Your task to perform on an android device: turn off notifications settings in the gmail app Image 0: 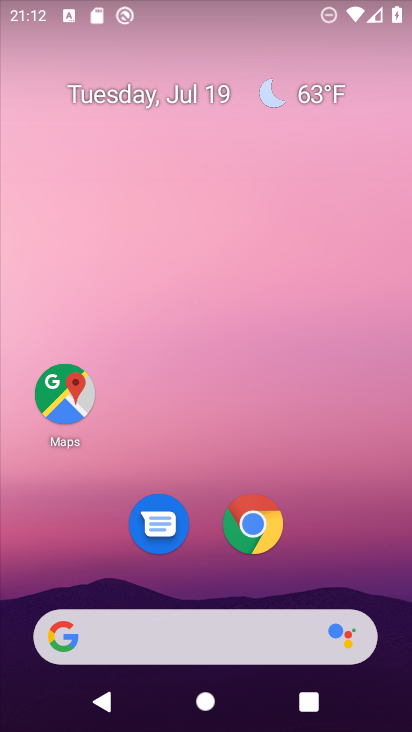
Step 0: drag from (315, 569) to (362, 27)
Your task to perform on an android device: turn off notifications settings in the gmail app Image 1: 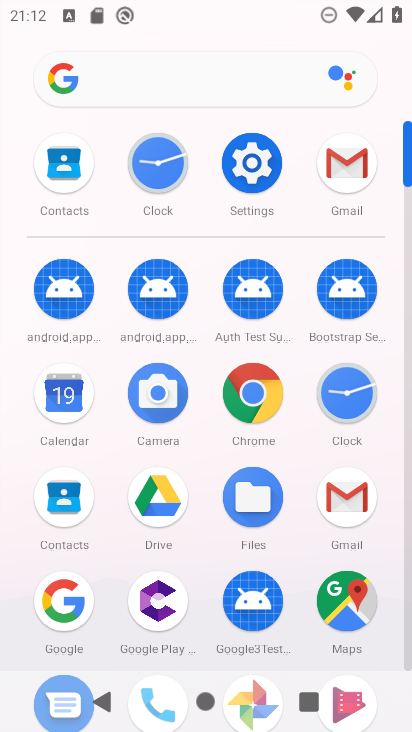
Step 1: click (357, 167)
Your task to perform on an android device: turn off notifications settings in the gmail app Image 2: 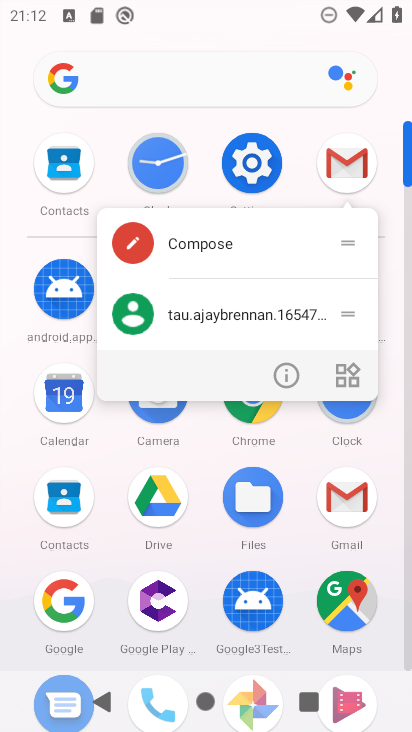
Step 2: click (349, 141)
Your task to perform on an android device: turn off notifications settings in the gmail app Image 3: 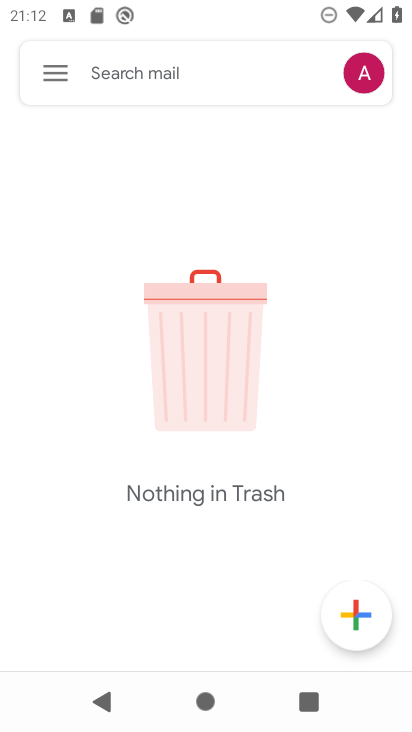
Step 3: click (61, 75)
Your task to perform on an android device: turn off notifications settings in the gmail app Image 4: 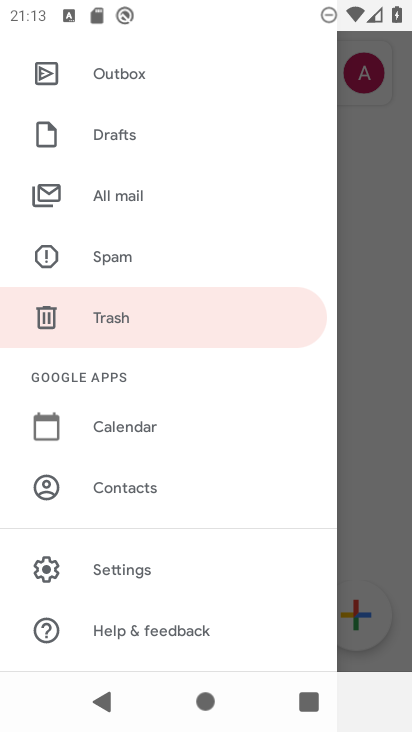
Step 4: click (117, 564)
Your task to perform on an android device: turn off notifications settings in the gmail app Image 5: 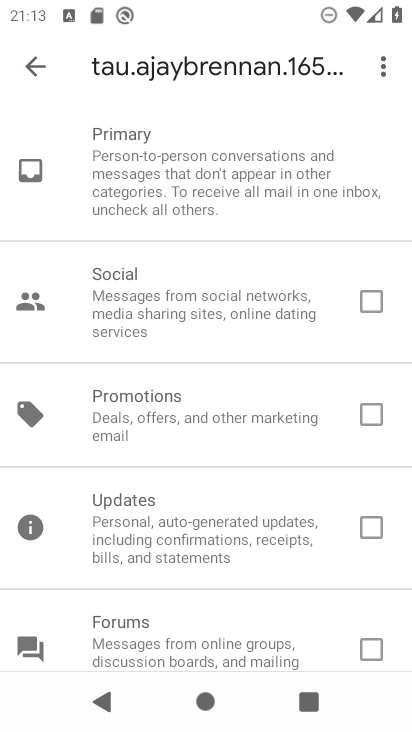
Step 5: click (37, 63)
Your task to perform on an android device: turn off notifications settings in the gmail app Image 6: 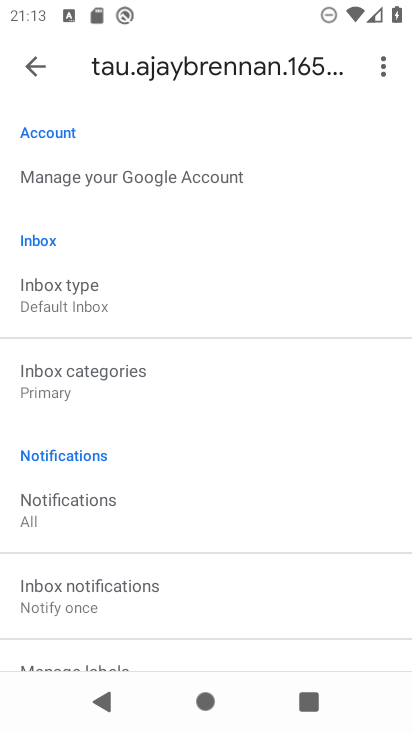
Step 6: drag from (256, 474) to (269, 159)
Your task to perform on an android device: turn off notifications settings in the gmail app Image 7: 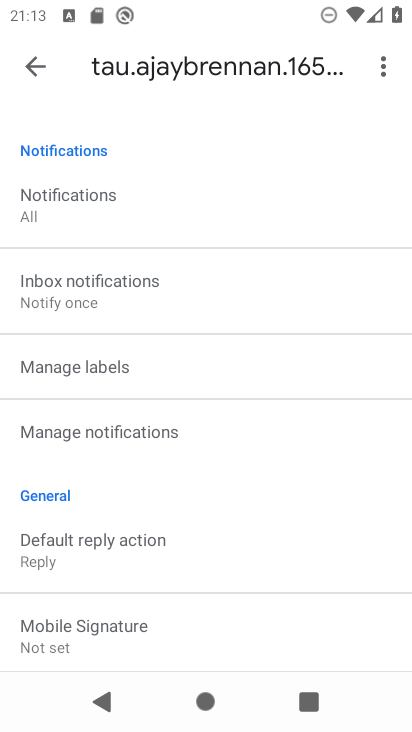
Step 7: click (236, 425)
Your task to perform on an android device: turn off notifications settings in the gmail app Image 8: 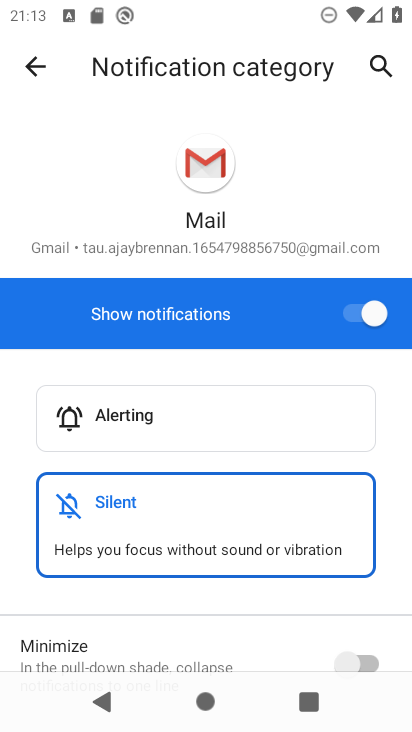
Step 8: click (371, 306)
Your task to perform on an android device: turn off notifications settings in the gmail app Image 9: 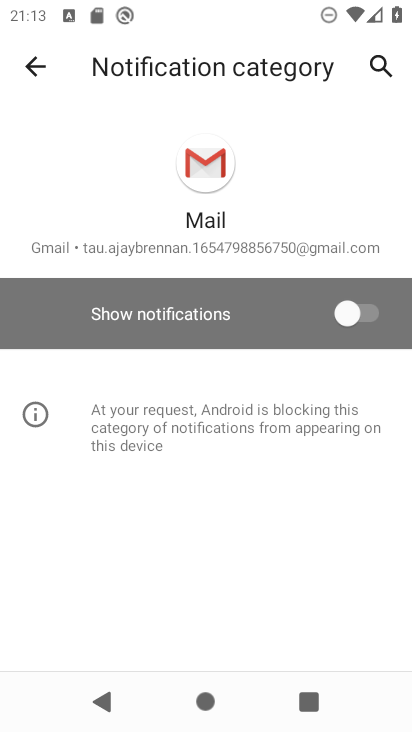
Step 9: task complete